Your task to perform on an android device: Open sound settings Image 0: 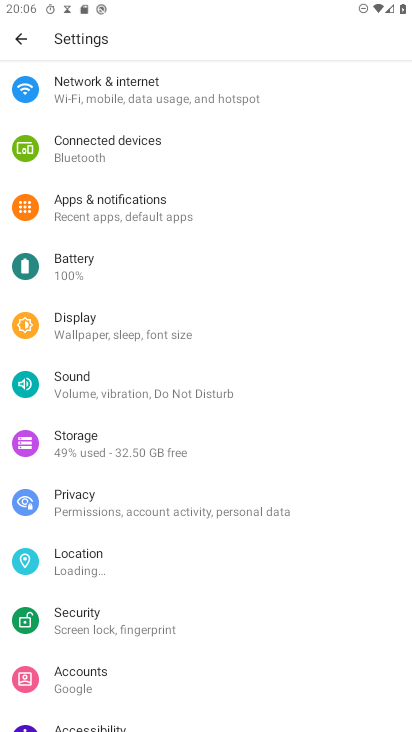
Step 0: click (110, 386)
Your task to perform on an android device: Open sound settings Image 1: 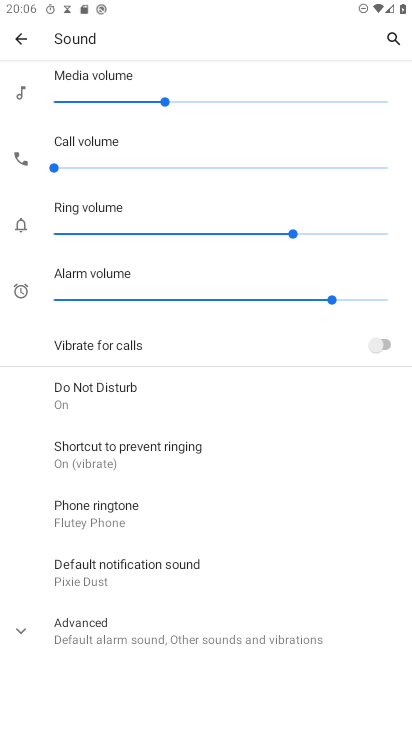
Step 1: task complete